Your task to perform on an android device: delete location history Image 0: 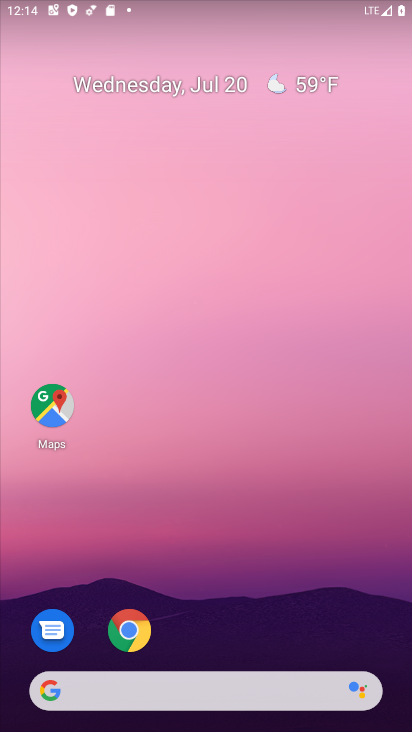
Step 0: drag from (219, 617) to (261, 210)
Your task to perform on an android device: delete location history Image 1: 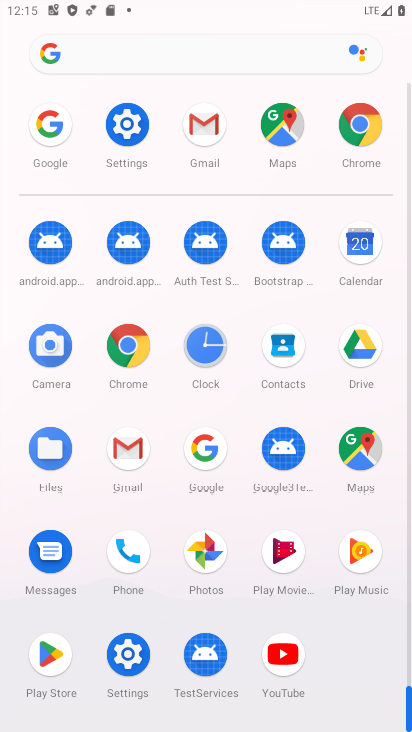
Step 1: click (138, 127)
Your task to perform on an android device: delete location history Image 2: 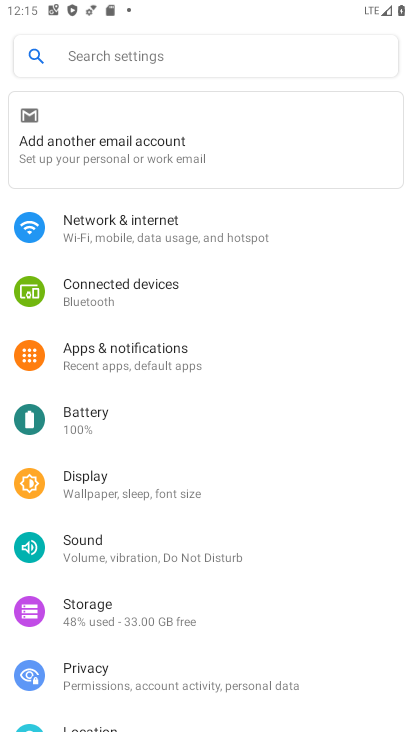
Step 2: drag from (153, 614) to (143, 296)
Your task to perform on an android device: delete location history Image 3: 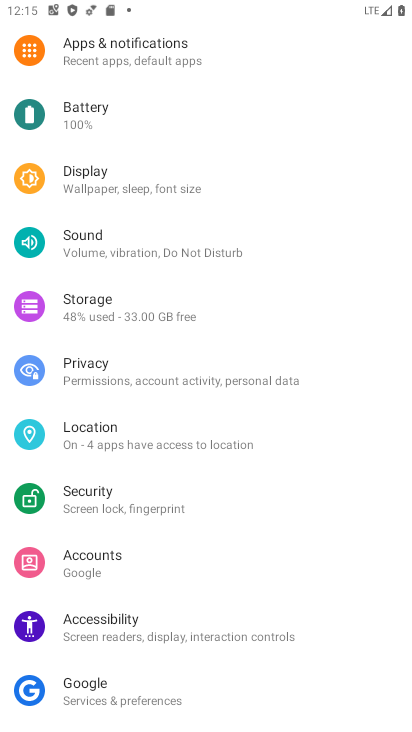
Step 3: click (171, 446)
Your task to perform on an android device: delete location history Image 4: 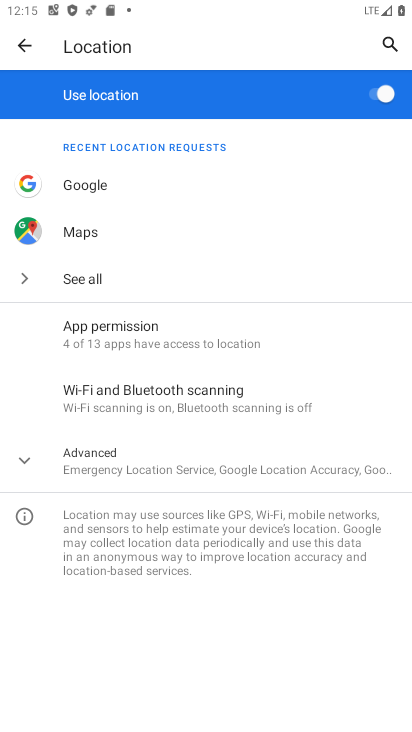
Step 4: click (227, 474)
Your task to perform on an android device: delete location history Image 5: 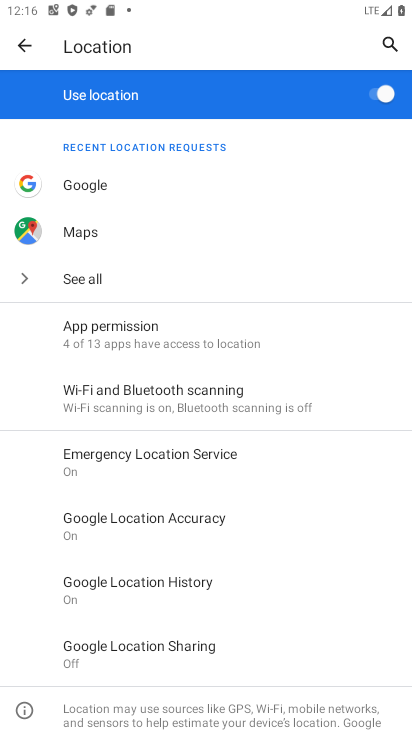
Step 5: click (196, 582)
Your task to perform on an android device: delete location history Image 6: 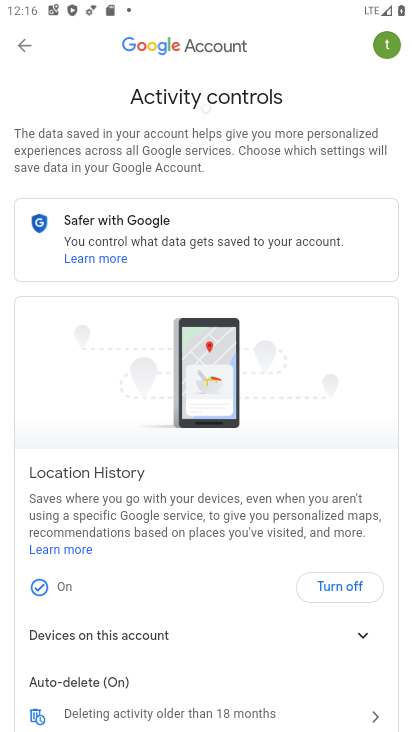
Step 6: drag from (172, 538) to (192, 277)
Your task to perform on an android device: delete location history Image 7: 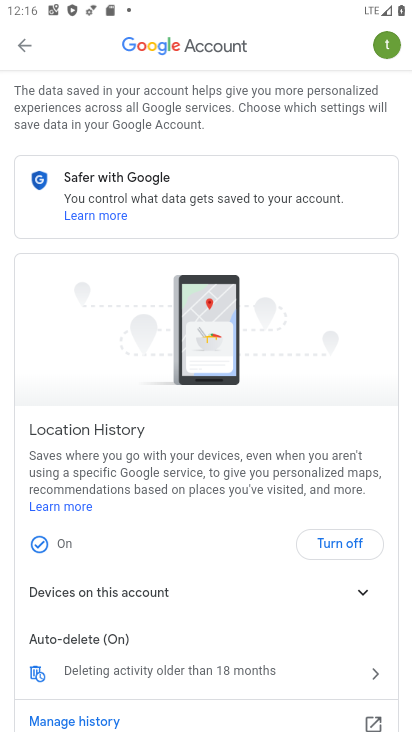
Step 7: click (220, 667)
Your task to perform on an android device: delete location history Image 8: 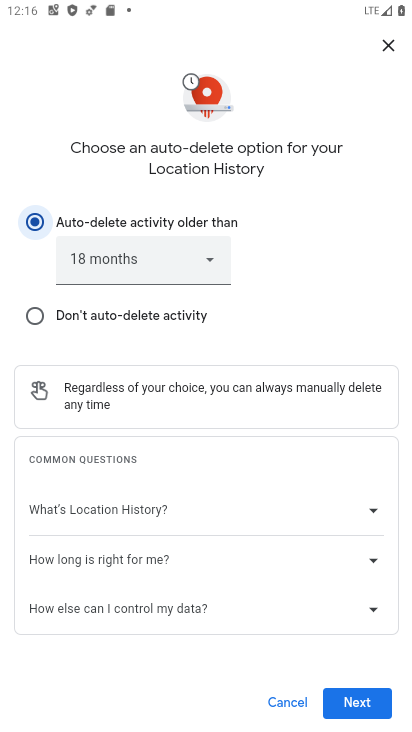
Step 8: click (371, 695)
Your task to perform on an android device: delete location history Image 9: 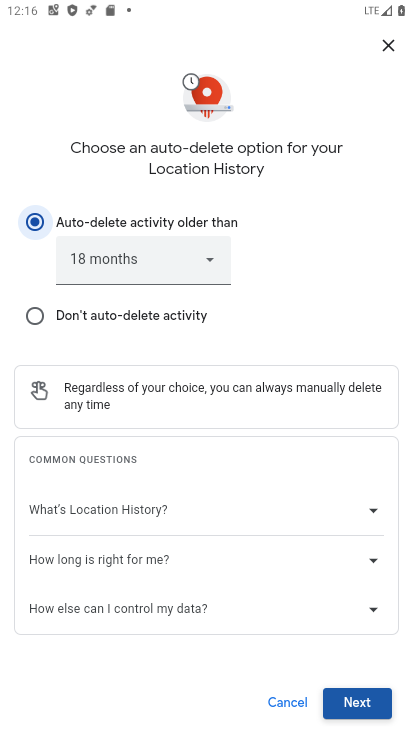
Step 9: click (373, 705)
Your task to perform on an android device: delete location history Image 10: 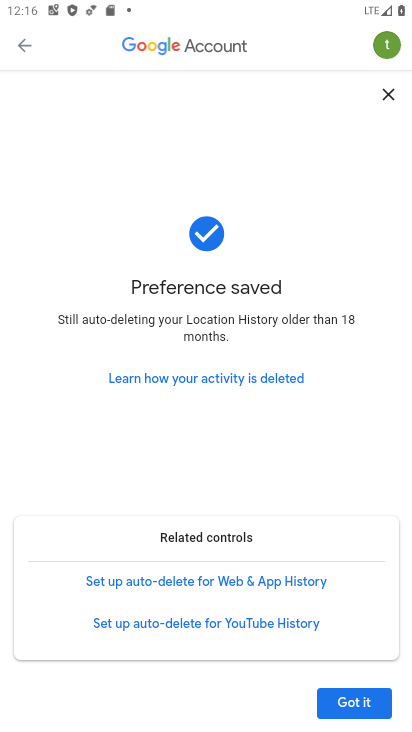
Step 10: task complete